Your task to perform on an android device: Play the last video I watched on Youtube Image 0: 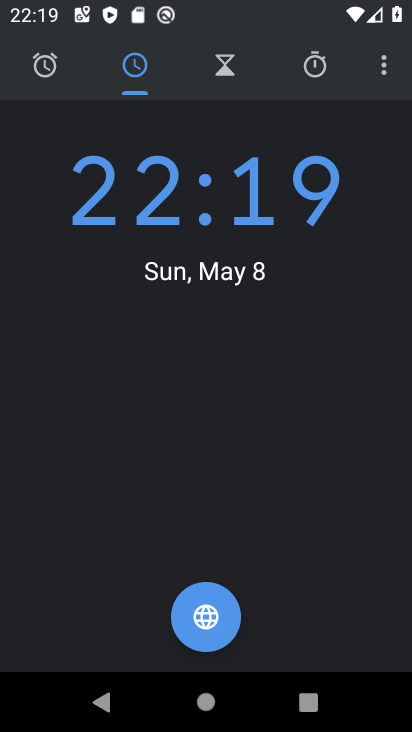
Step 0: press home button
Your task to perform on an android device: Play the last video I watched on Youtube Image 1: 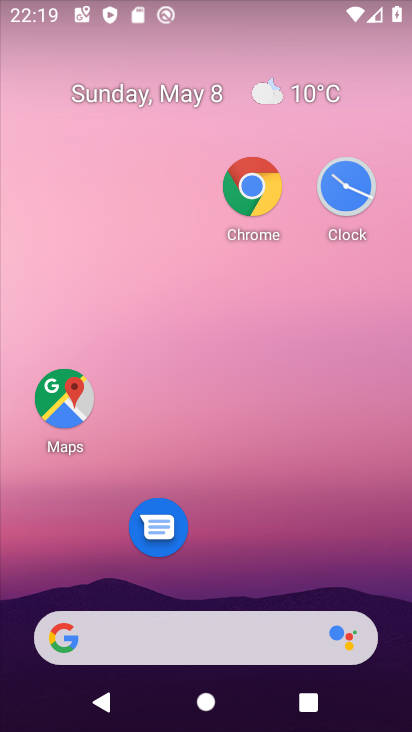
Step 1: drag from (314, 519) to (315, 130)
Your task to perform on an android device: Play the last video I watched on Youtube Image 2: 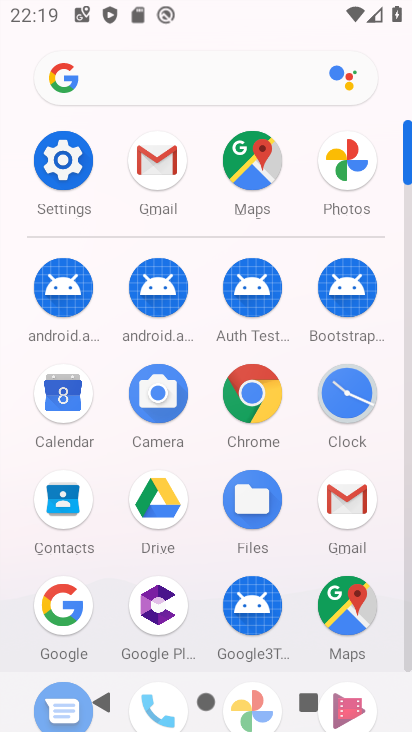
Step 2: drag from (269, 585) to (329, 94)
Your task to perform on an android device: Play the last video I watched on Youtube Image 3: 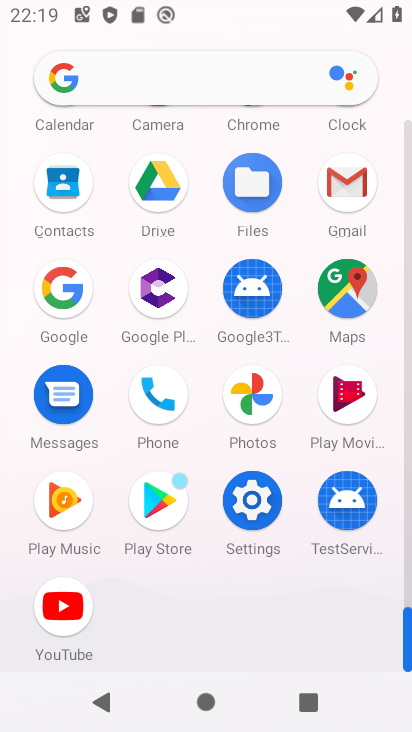
Step 3: click (63, 613)
Your task to perform on an android device: Play the last video I watched on Youtube Image 4: 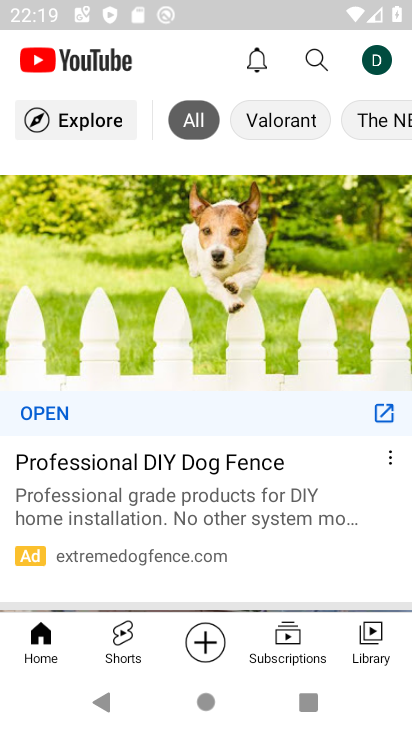
Step 4: click (378, 656)
Your task to perform on an android device: Play the last video I watched on Youtube Image 5: 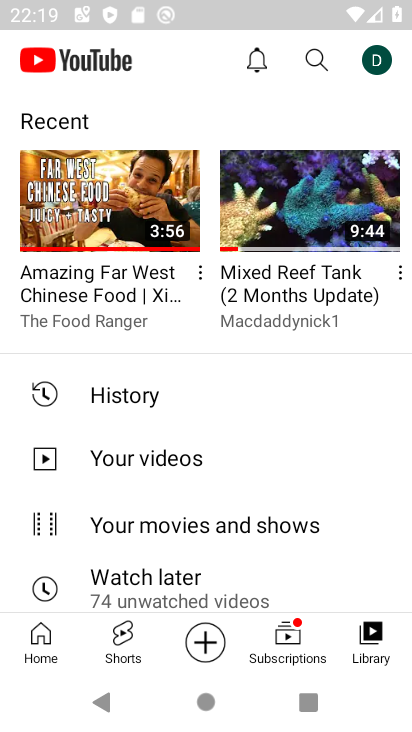
Step 5: drag from (357, 230) to (96, 247)
Your task to perform on an android device: Play the last video I watched on Youtube Image 6: 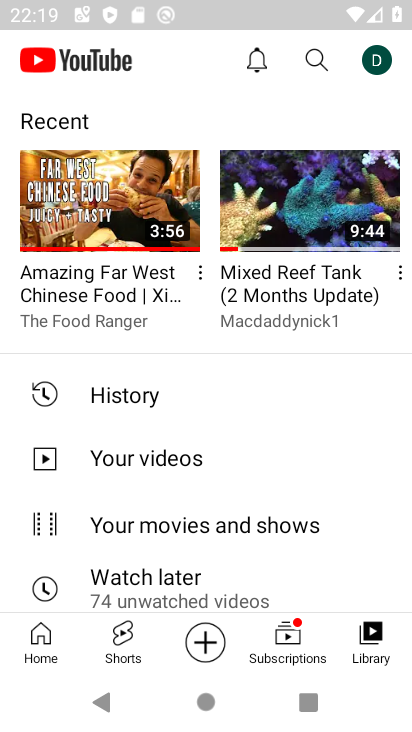
Step 6: click (134, 219)
Your task to perform on an android device: Play the last video I watched on Youtube Image 7: 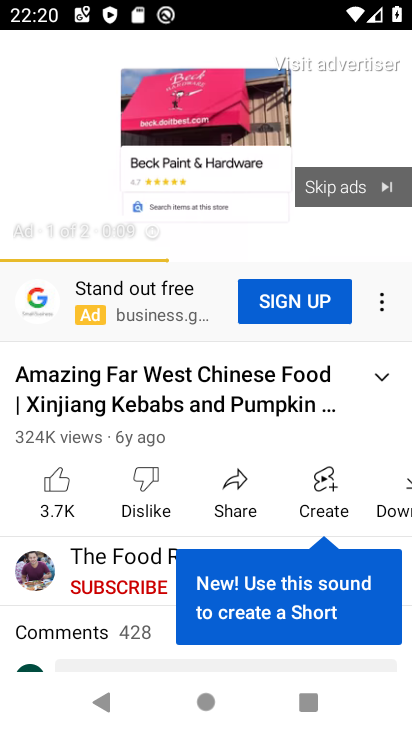
Step 7: click (330, 188)
Your task to perform on an android device: Play the last video I watched on Youtube Image 8: 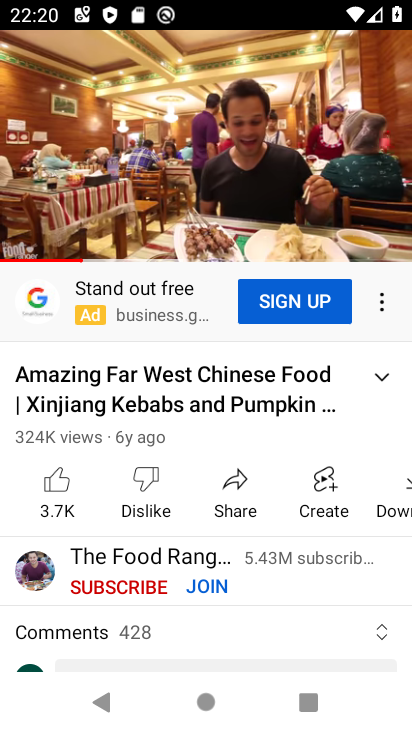
Step 8: task complete